Your task to perform on an android device: clear all cookies in the chrome app Image 0: 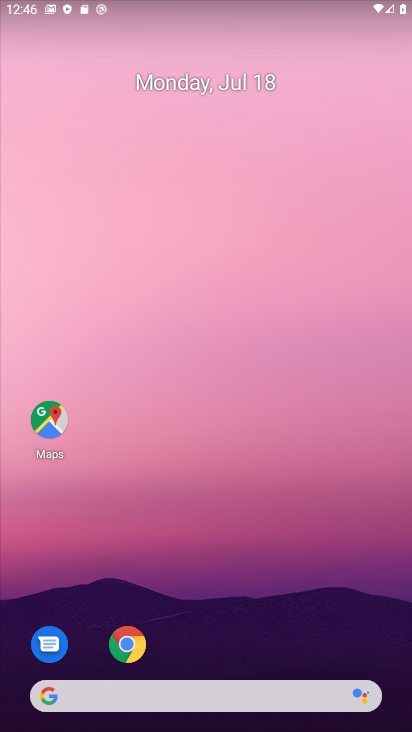
Step 0: drag from (247, 588) to (256, 158)
Your task to perform on an android device: clear all cookies in the chrome app Image 1: 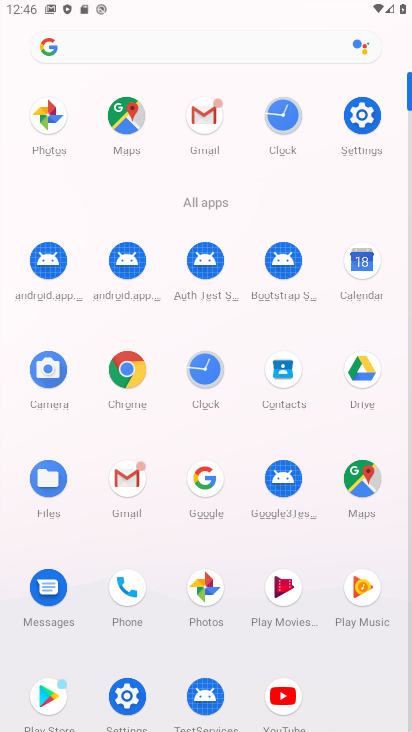
Step 1: click (121, 373)
Your task to perform on an android device: clear all cookies in the chrome app Image 2: 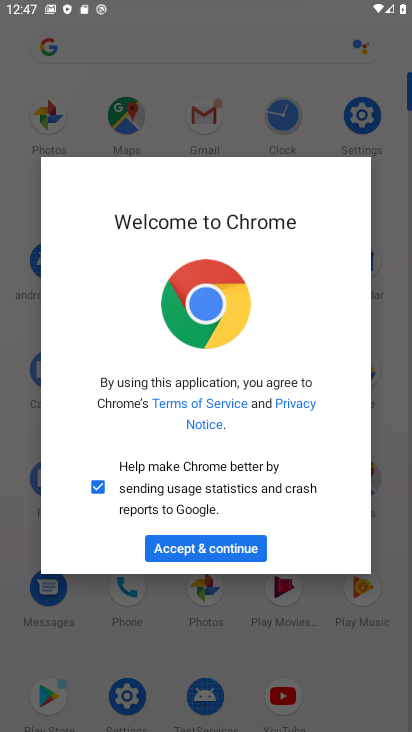
Step 2: click (246, 544)
Your task to perform on an android device: clear all cookies in the chrome app Image 3: 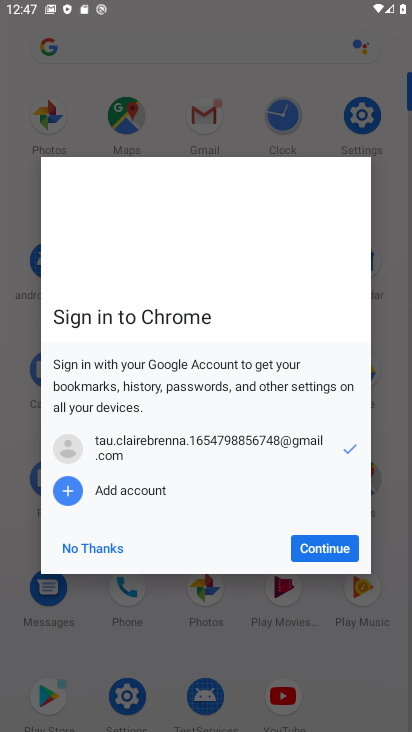
Step 3: click (312, 543)
Your task to perform on an android device: clear all cookies in the chrome app Image 4: 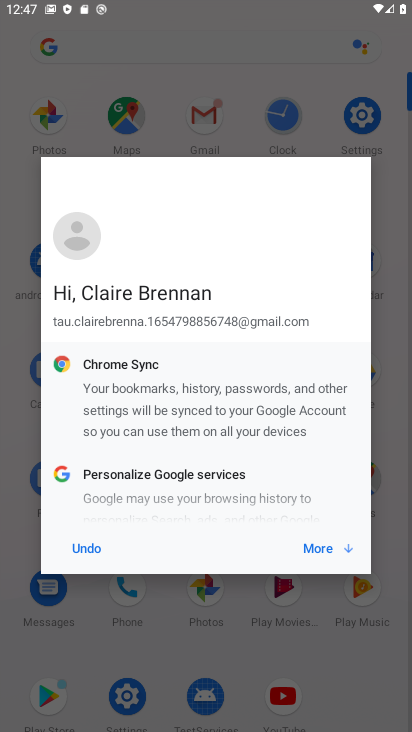
Step 4: click (312, 543)
Your task to perform on an android device: clear all cookies in the chrome app Image 5: 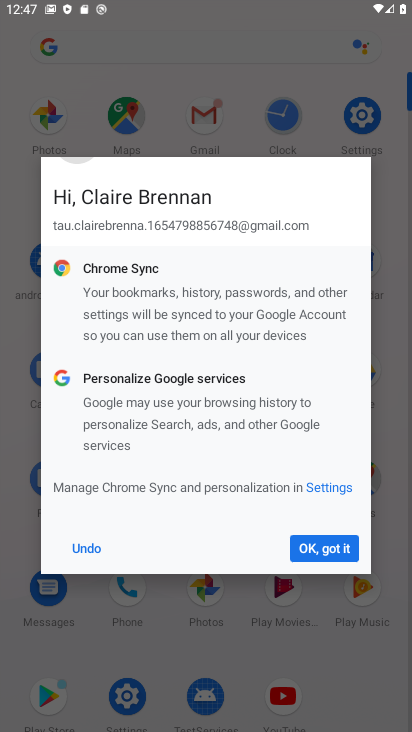
Step 5: click (312, 543)
Your task to perform on an android device: clear all cookies in the chrome app Image 6: 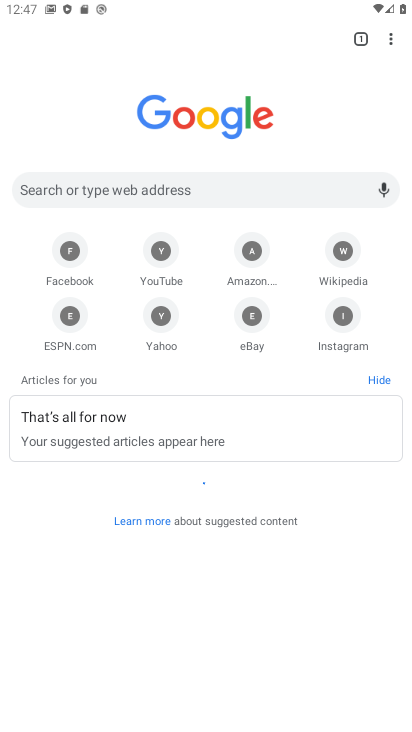
Step 6: click (390, 31)
Your task to perform on an android device: clear all cookies in the chrome app Image 7: 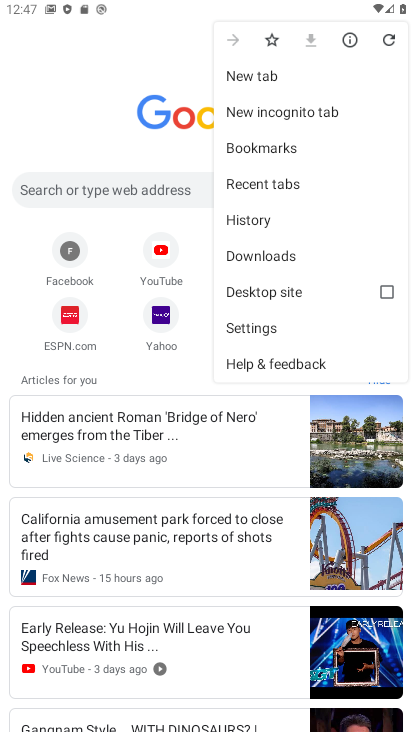
Step 7: click (276, 226)
Your task to perform on an android device: clear all cookies in the chrome app Image 8: 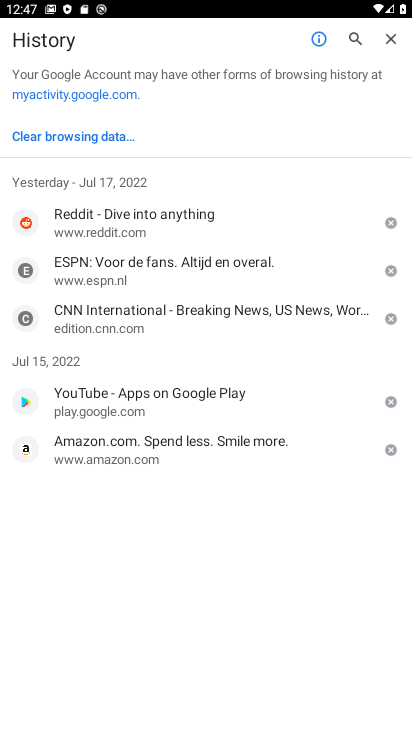
Step 8: click (101, 133)
Your task to perform on an android device: clear all cookies in the chrome app Image 9: 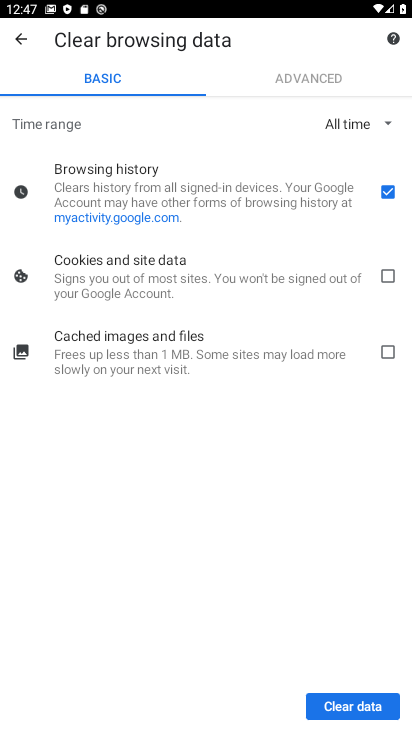
Step 9: click (332, 283)
Your task to perform on an android device: clear all cookies in the chrome app Image 10: 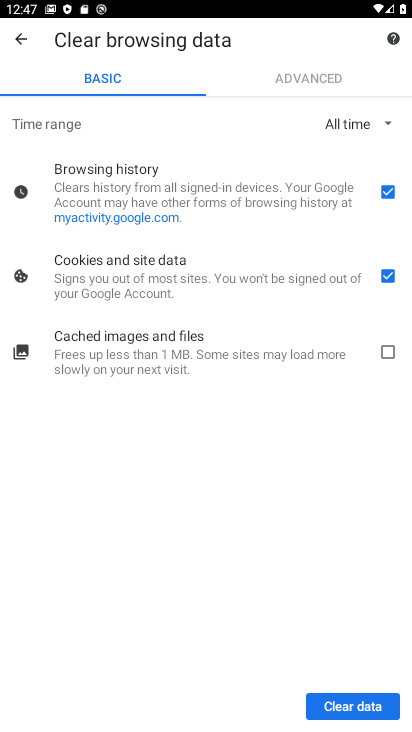
Step 10: click (346, 226)
Your task to perform on an android device: clear all cookies in the chrome app Image 11: 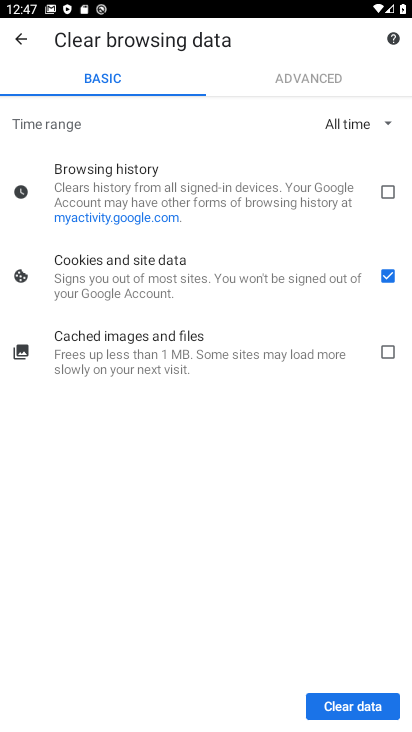
Step 11: click (353, 706)
Your task to perform on an android device: clear all cookies in the chrome app Image 12: 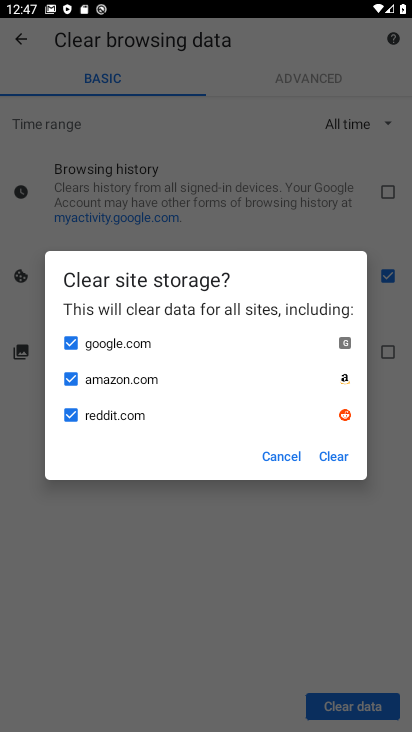
Step 12: click (336, 460)
Your task to perform on an android device: clear all cookies in the chrome app Image 13: 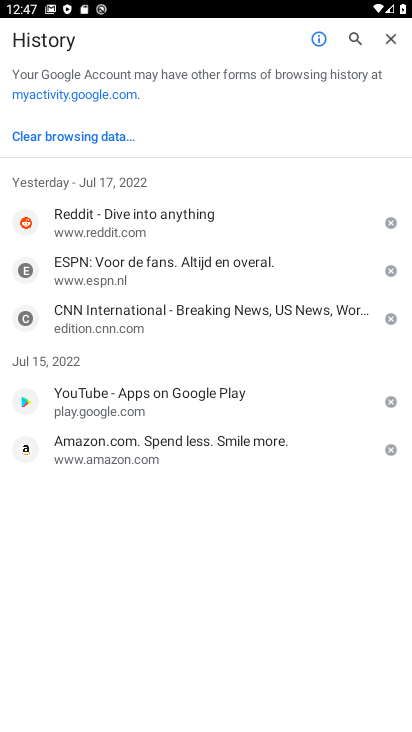
Step 13: task complete